Your task to perform on an android device: Go to eBay Image 0: 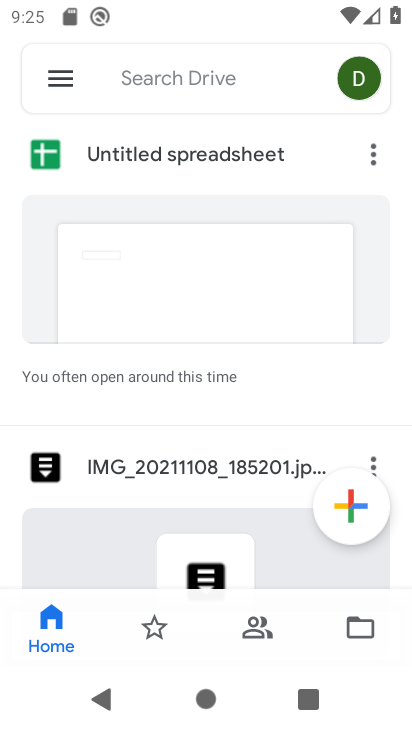
Step 0: press home button
Your task to perform on an android device: Go to eBay Image 1: 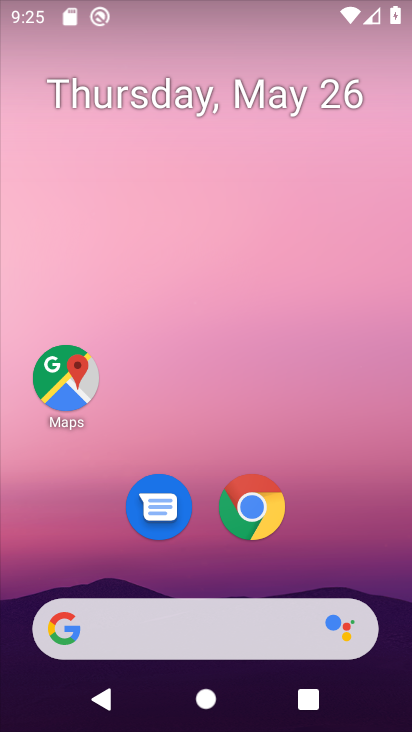
Step 1: drag from (381, 588) to (372, 172)
Your task to perform on an android device: Go to eBay Image 2: 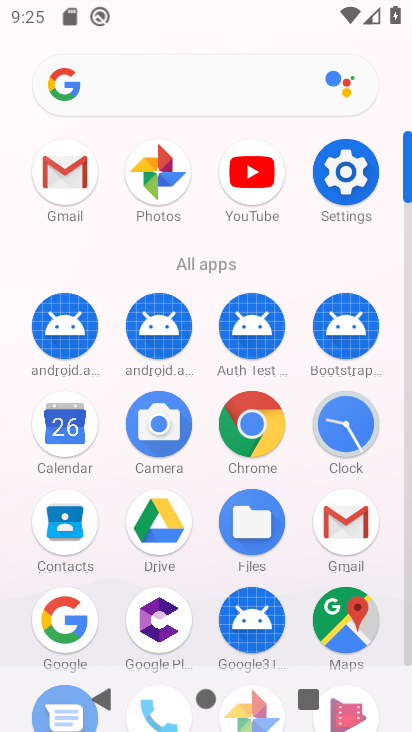
Step 2: click (259, 441)
Your task to perform on an android device: Go to eBay Image 3: 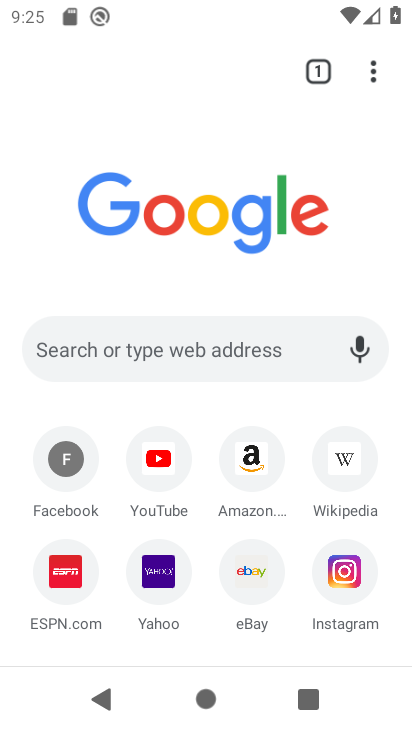
Step 3: click (232, 349)
Your task to perform on an android device: Go to eBay Image 4: 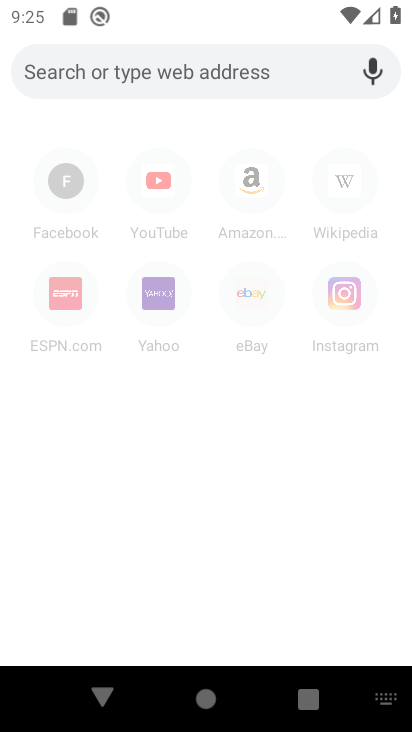
Step 4: type "ebay"
Your task to perform on an android device: Go to eBay Image 5: 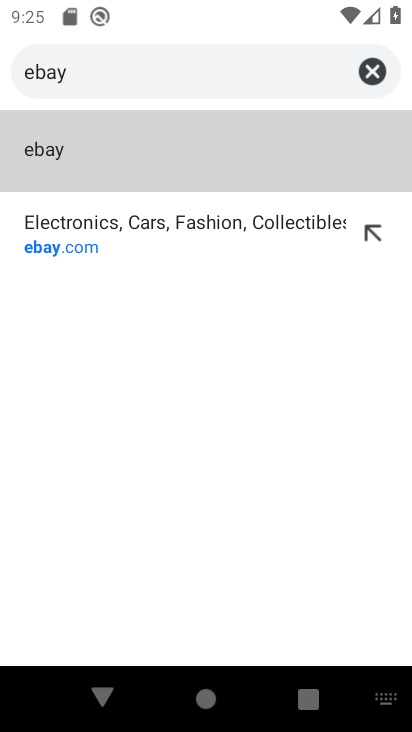
Step 5: click (248, 158)
Your task to perform on an android device: Go to eBay Image 6: 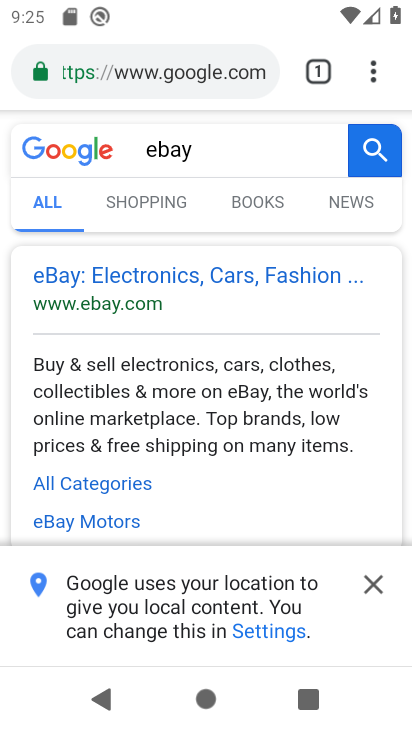
Step 6: task complete